Your task to perform on an android device: Open ESPN.com Image 0: 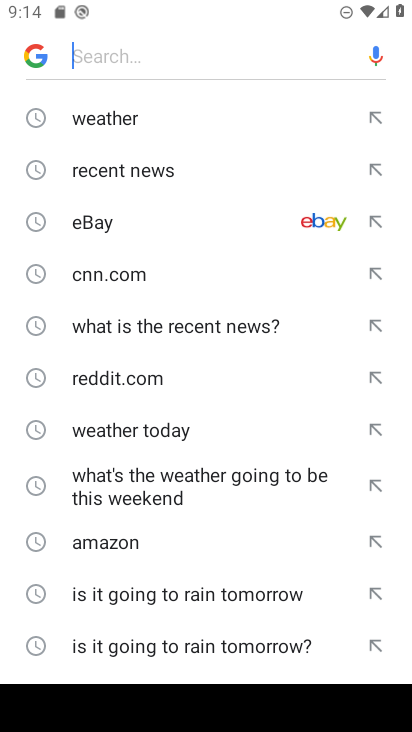
Step 0: press home button
Your task to perform on an android device: Open ESPN.com Image 1: 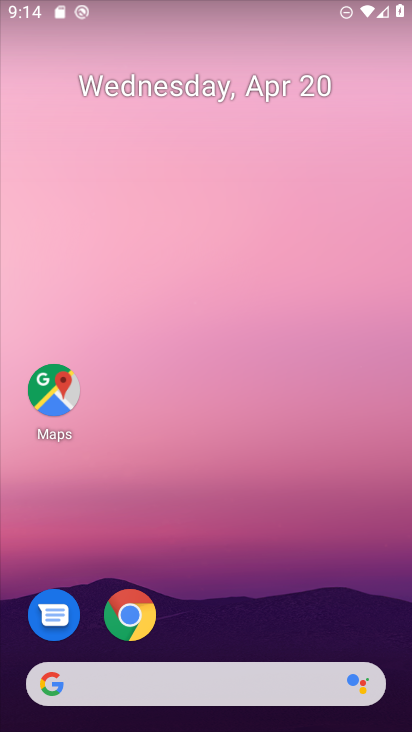
Step 1: click (130, 617)
Your task to perform on an android device: Open ESPN.com Image 2: 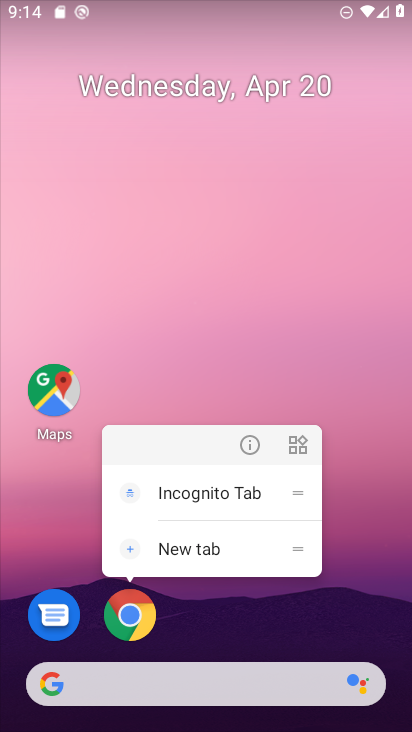
Step 2: click (130, 617)
Your task to perform on an android device: Open ESPN.com Image 3: 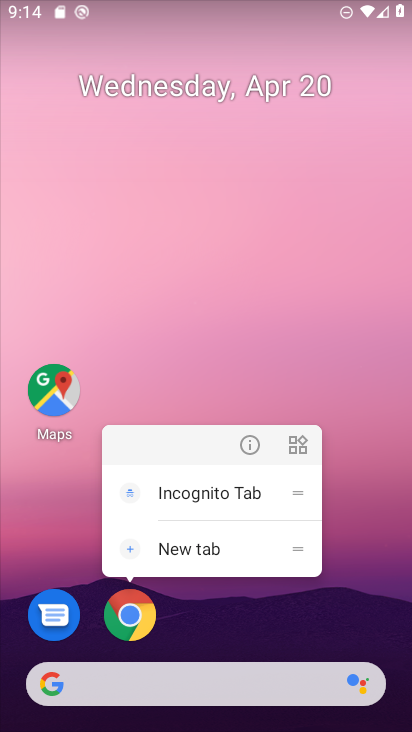
Step 3: click (130, 617)
Your task to perform on an android device: Open ESPN.com Image 4: 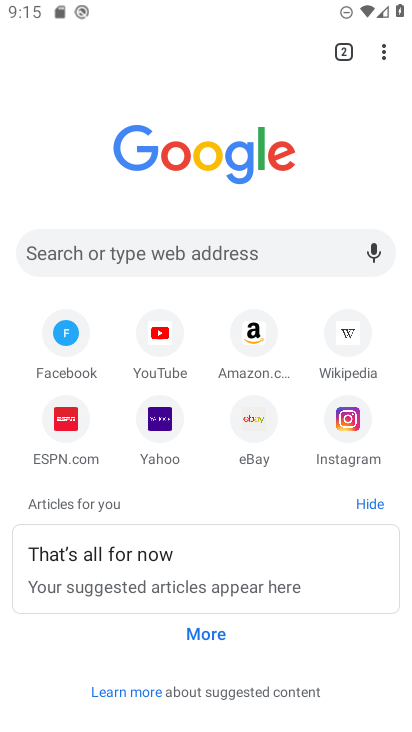
Step 4: click (239, 251)
Your task to perform on an android device: Open ESPN.com Image 5: 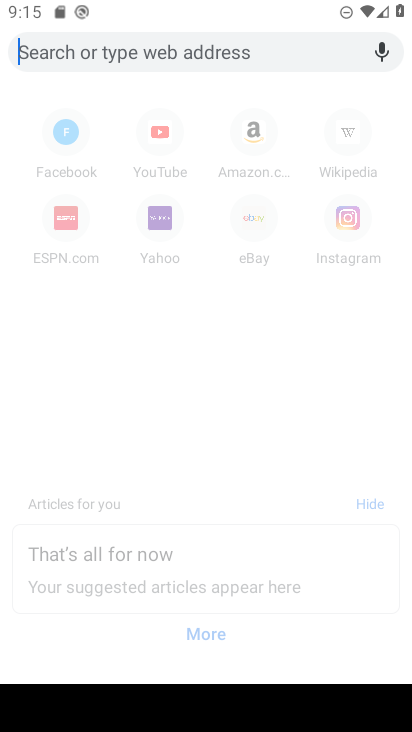
Step 5: click (76, 231)
Your task to perform on an android device: Open ESPN.com Image 6: 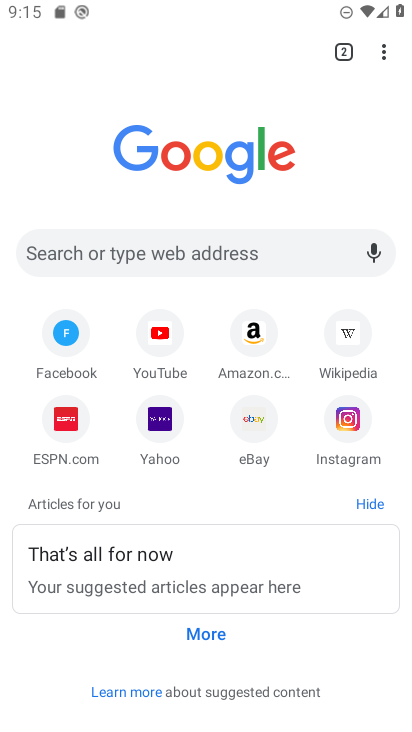
Step 6: click (74, 423)
Your task to perform on an android device: Open ESPN.com Image 7: 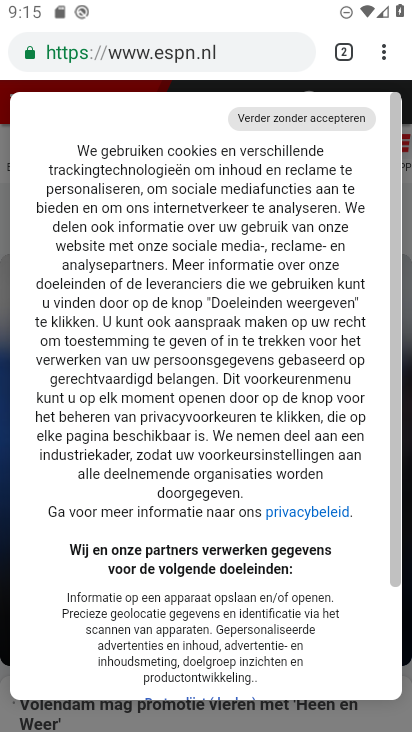
Step 7: task complete